Your task to perform on an android device: manage bookmarks in the chrome app Image 0: 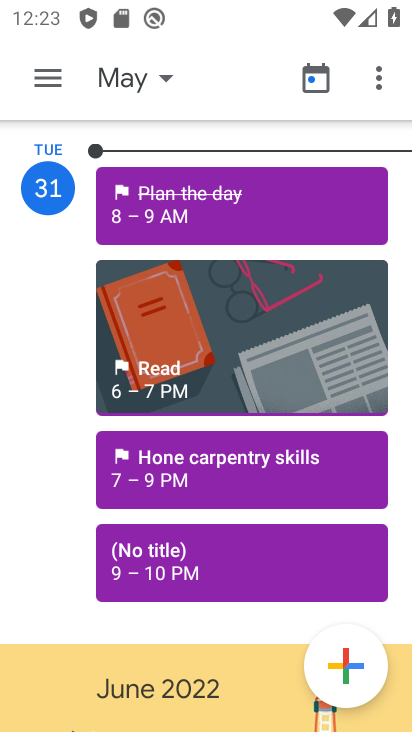
Step 0: press home button
Your task to perform on an android device: manage bookmarks in the chrome app Image 1: 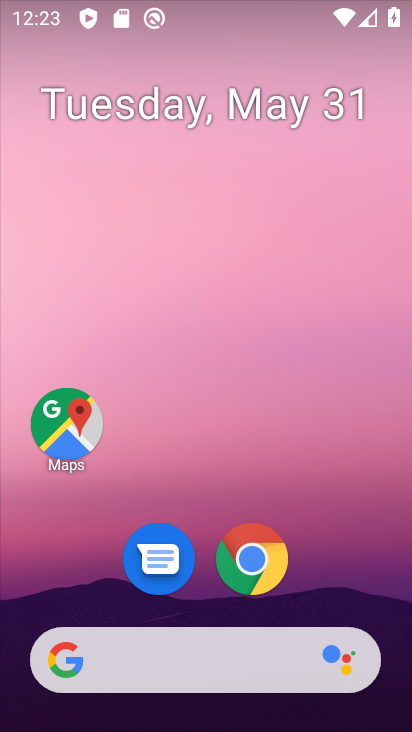
Step 1: click (238, 559)
Your task to perform on an android device: manage bookmarks in the chrome app Image 2: 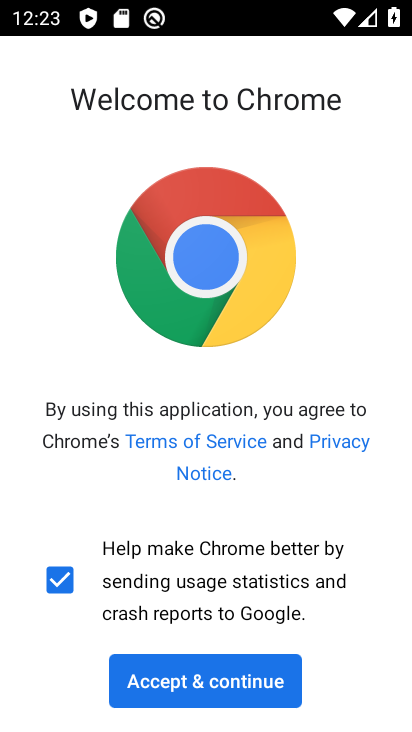
Step 2: click (255, 682)
Your task to perform on an android device: manage bookmarks in the chrome app Image 3: 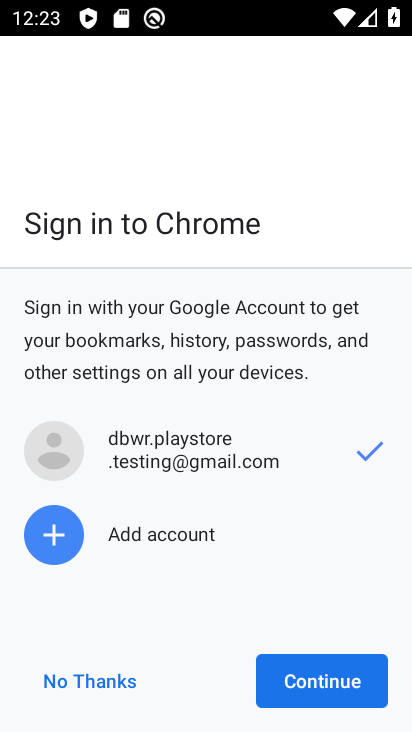
Step 3: click (300, 681)
Your task to perform on an android device: manage bookmarks in the chrome app Image 4: 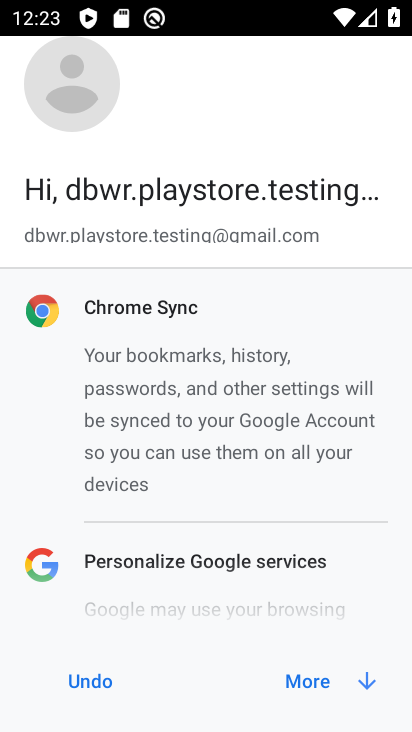
Step 4: click (339, 687)
Your task to perform on an android device: manage bookmarks in the chrome app Image 5: 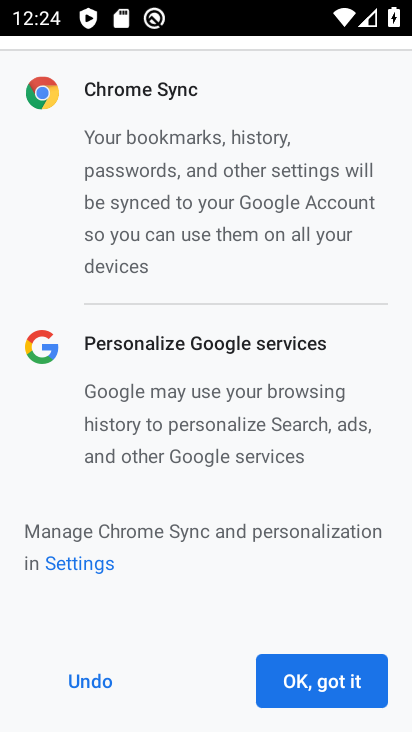
Step 5: click (331, 685)
Your task to perform on an android device: manage bookmarks in the chrome app Image 6: 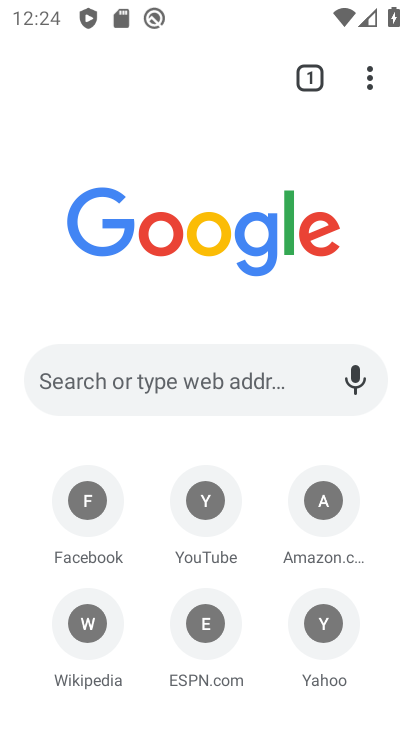
Step 6: click (375, 88)
Your task to perform on an android device: manage bookmarks in the chrome app Image 7: 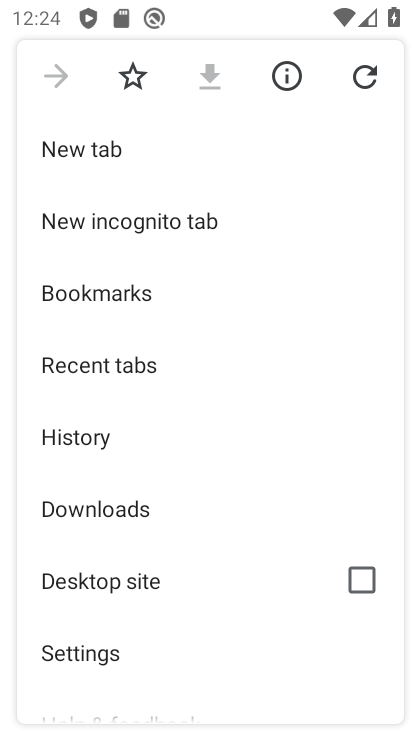
Step 7: click (116, 298)
Your task to perform on an android device: manage bookmarks in the chrome app Image 8: 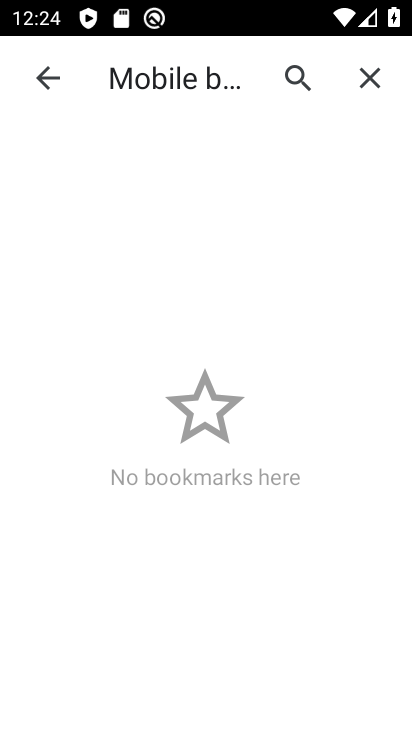
Step 8: task complete